Your task to perform on an android device: Go to settings Image 0: 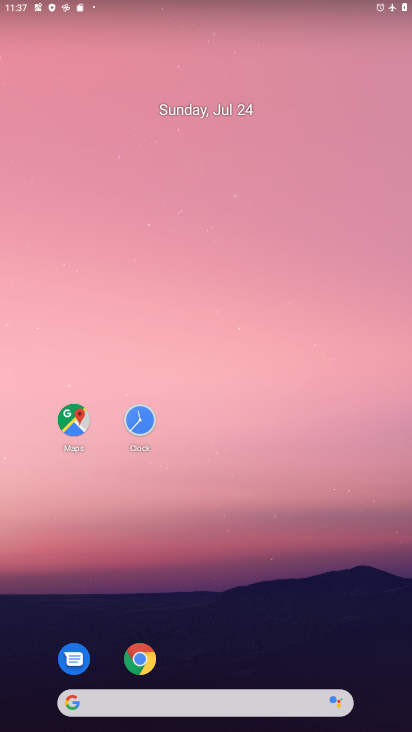
Step 0: drag from (385, 665) to (247, 1)
Your task to perform on an android device: Go to settings Image 1: 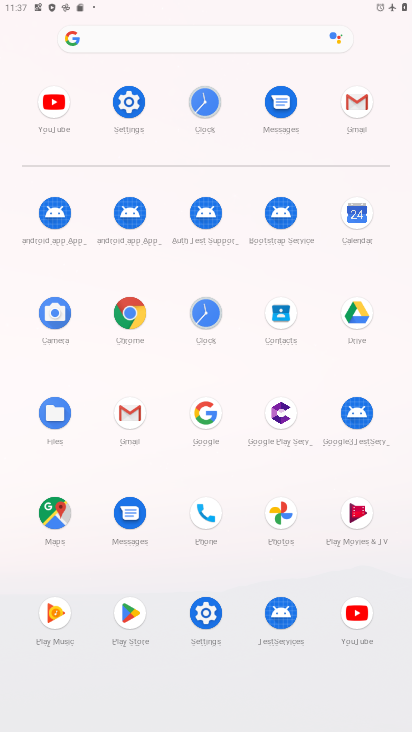
Step 1: click (205, 616)
Your task to perform on an android device: Go to settings Image 2: 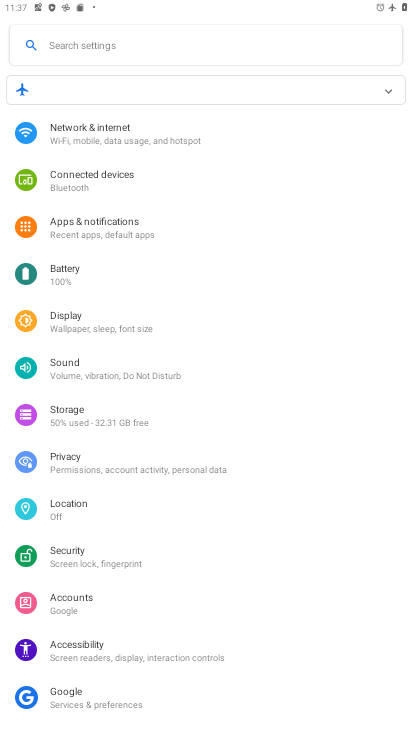
Step 2: task complete